Your task to perform on an android device: open wifi settings Image 0: 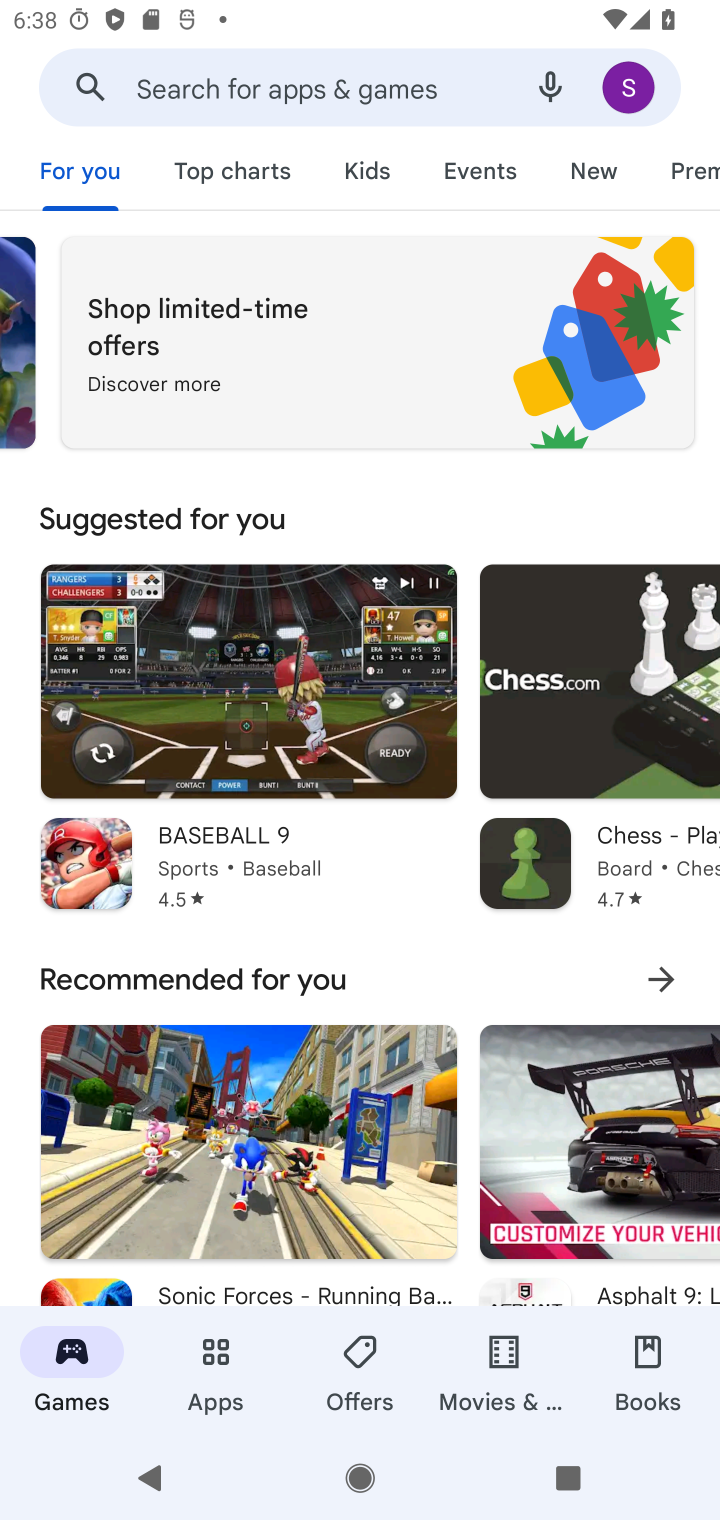
Step 0: press home button
Your task to perform on an android device: open wifi settings Image 1: 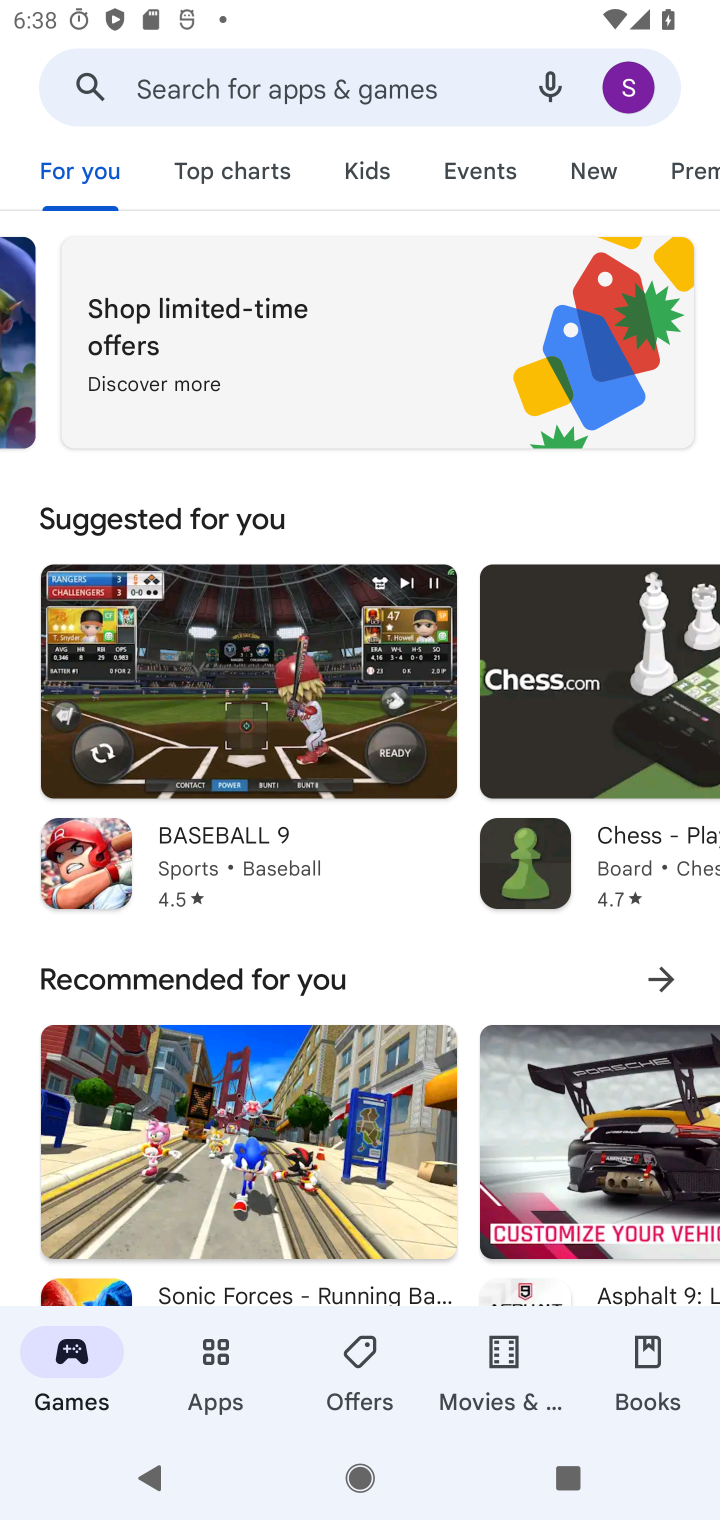
Step 1: press home button
Your task to perform on an android device: open wifi settings Image 2: 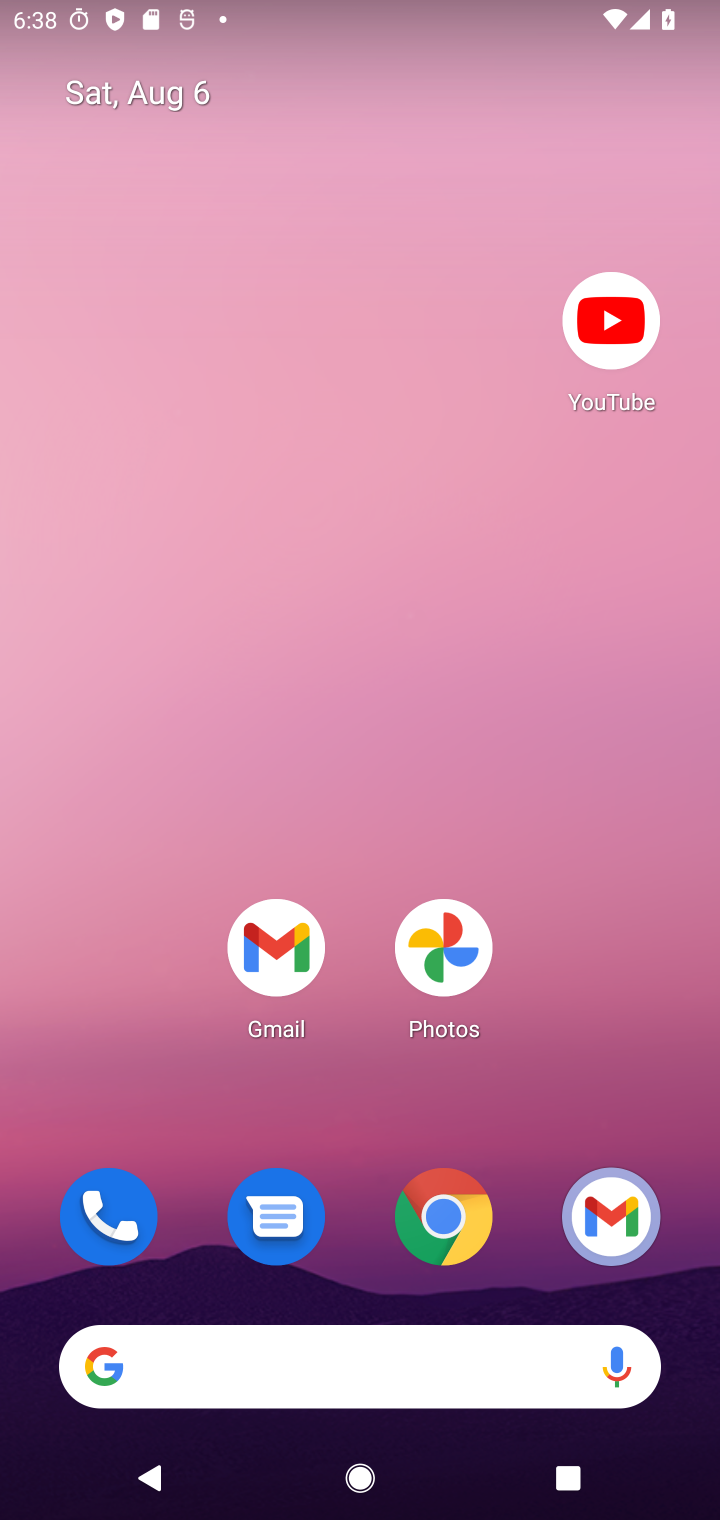
Step 2: drag from (617, 1075) to (430, 170)
Your task to perform on an android device: open wifi settings Image 3: 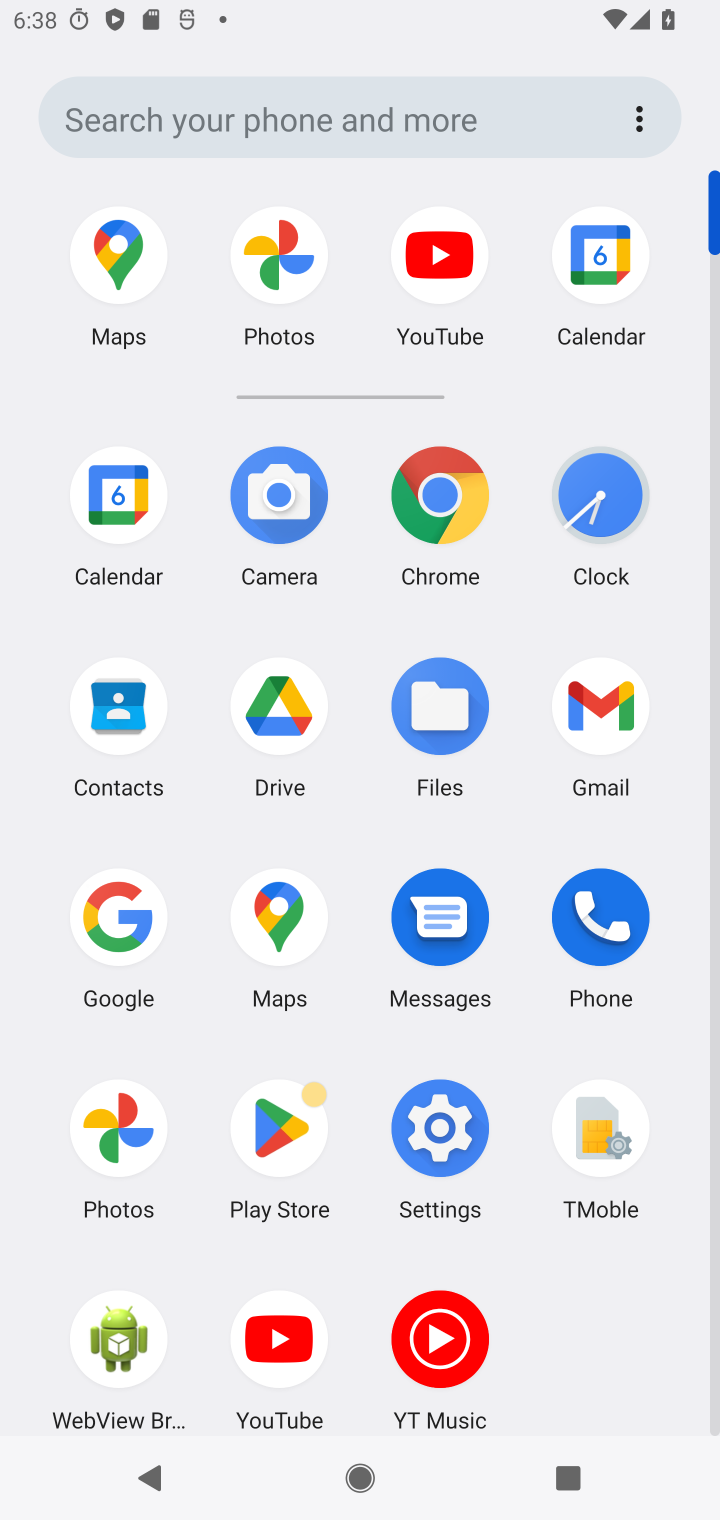
Step 3: click (423, 1137)
Your task to perform on an android device: open wifi settings Image 4: 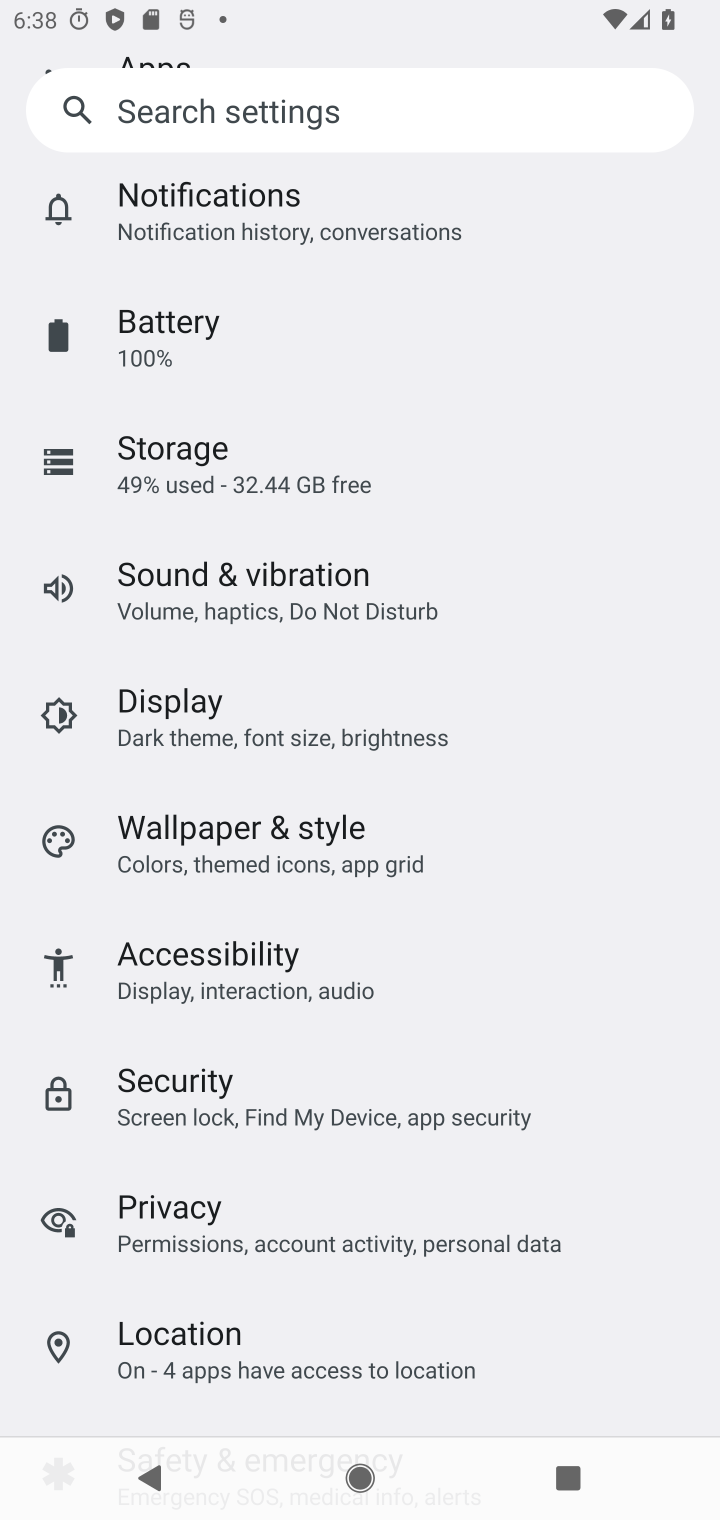
Step 4: drag from (450, 338) to (667, 1146)
Your task to perform on an android device: open wifi settings Image 5: 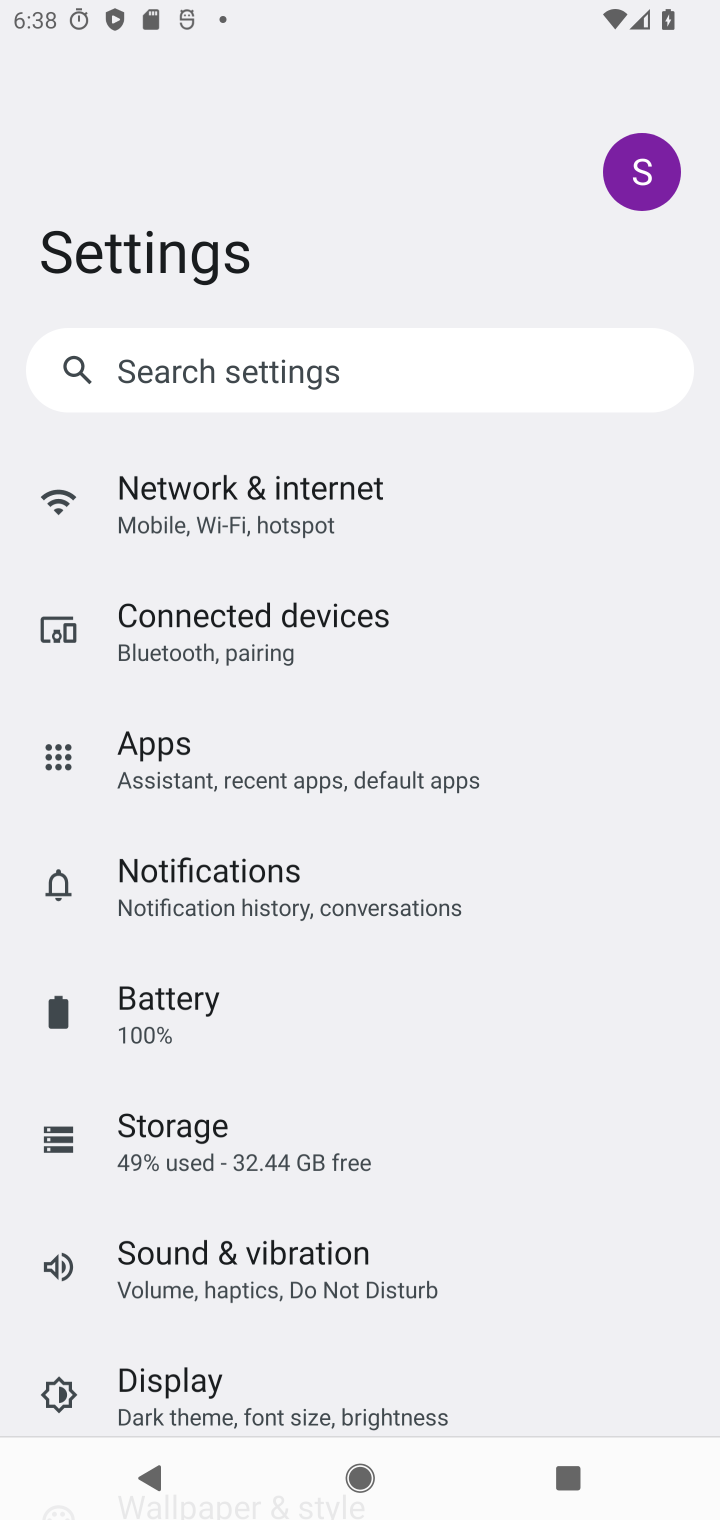
Step 5: click (282, 453)
Your task to perform on an android device: open wifi settings Image 6: 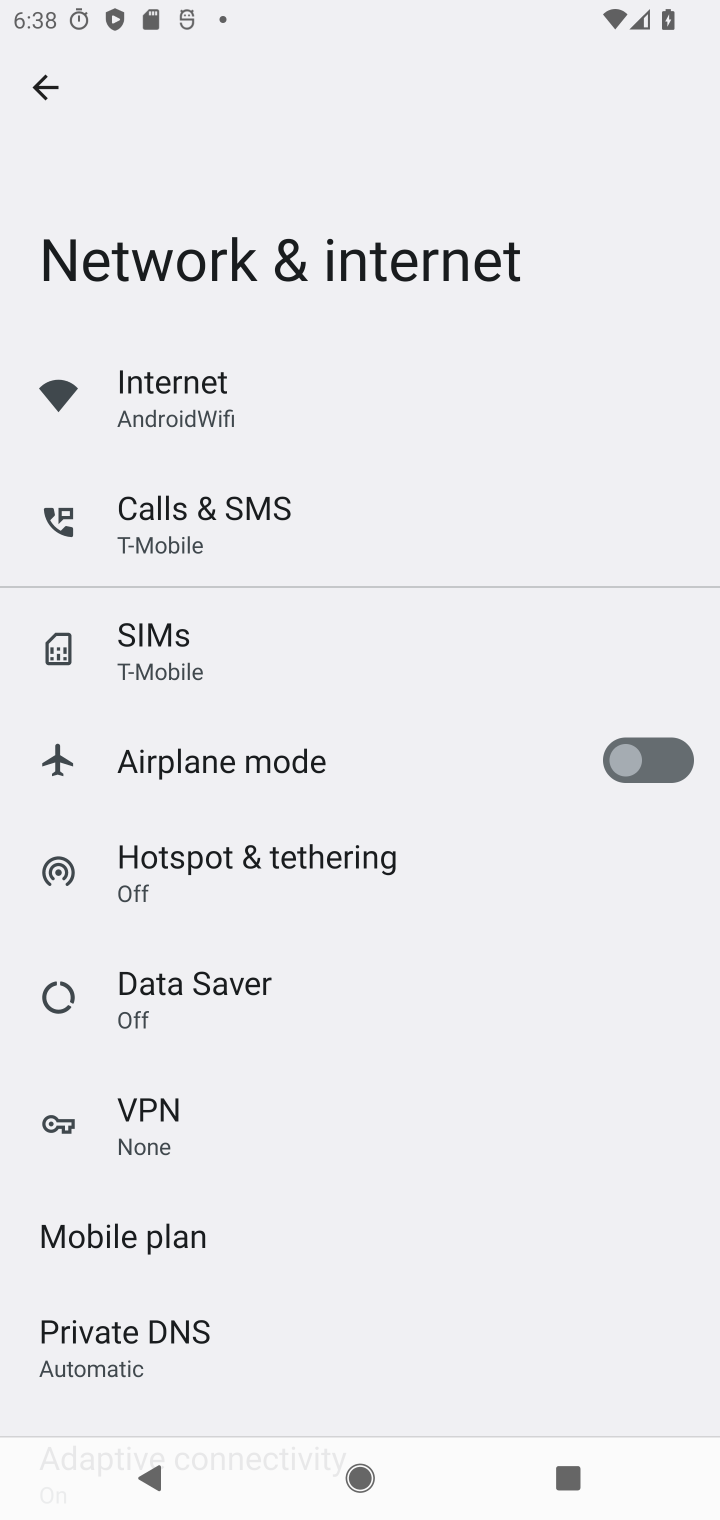
Step 6: click (202, 392)
Your task to perform on an android device: open wifi settings Image 7: 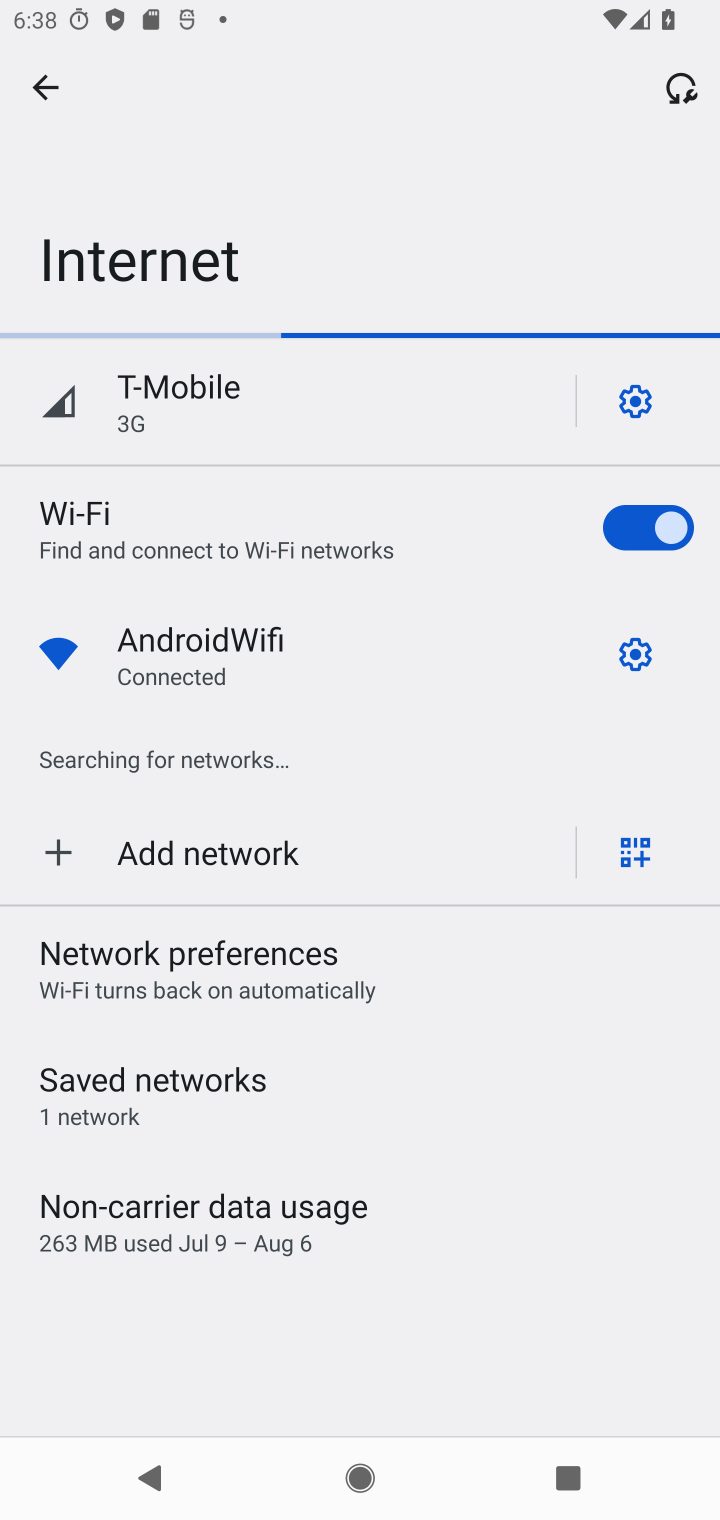
Step 7: click (631, 669)
Your task to perform on an android device: open wifi settings Image 8: 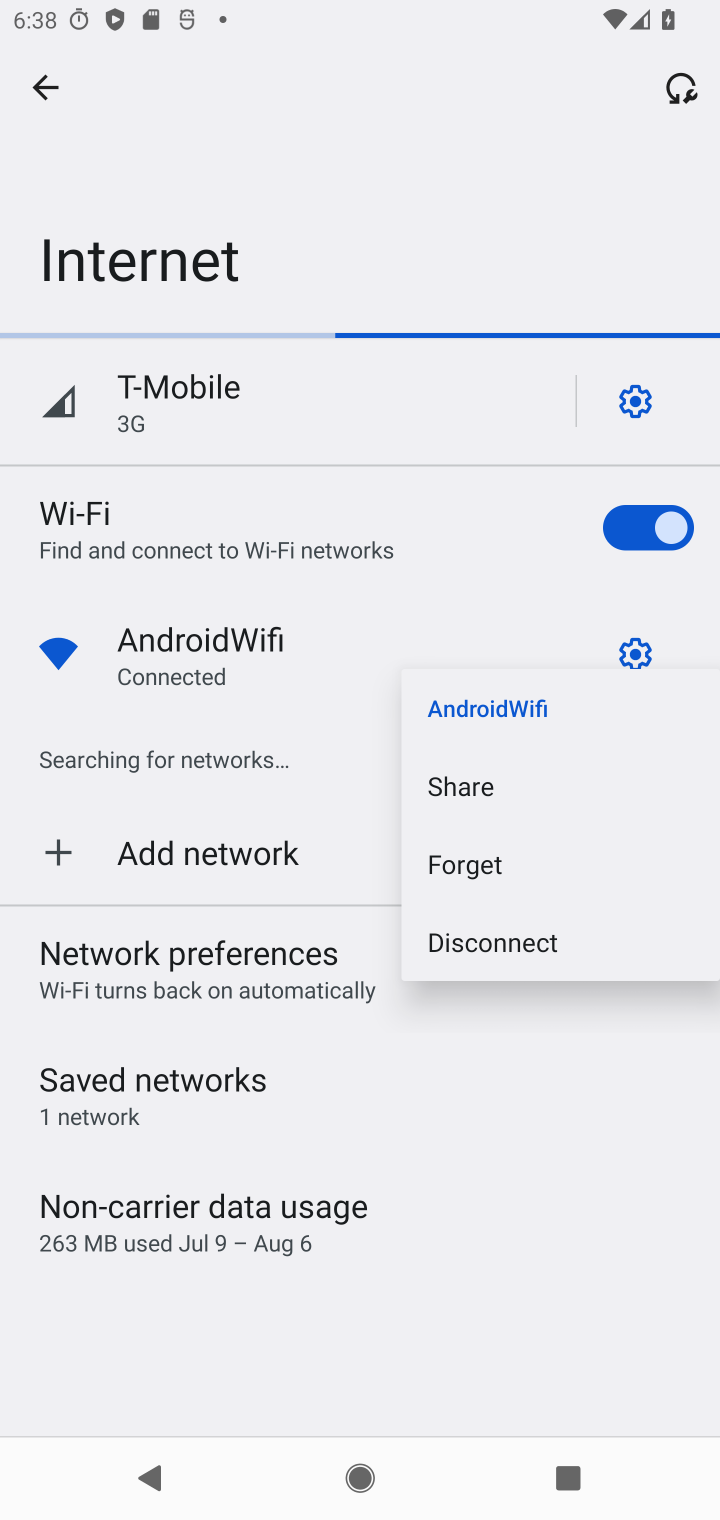
Step 8: click (628, 631)
Your task to perform on an android device: open wifi settings Image 9: 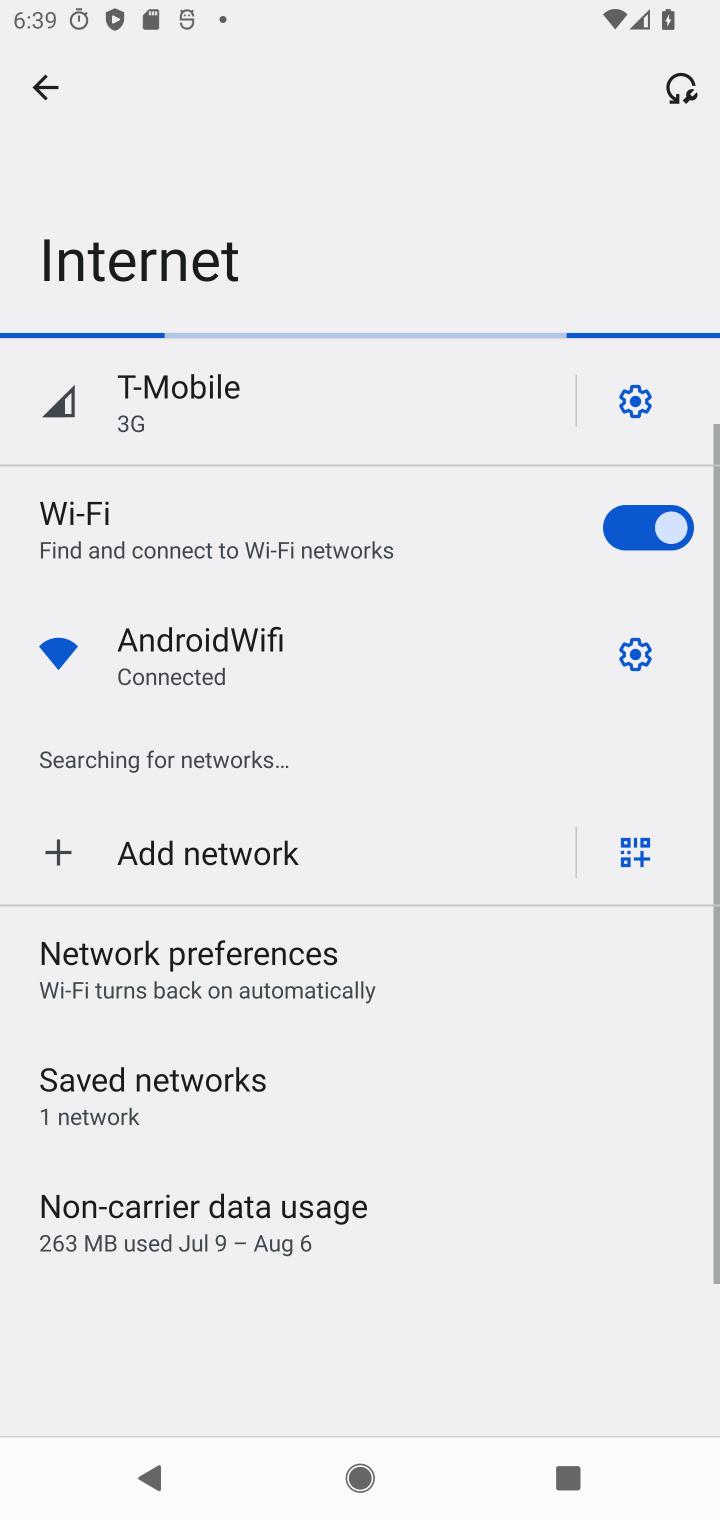
Step 9: click (627, 652)
Your task to perform on an android device: open wifi settings Image 10: 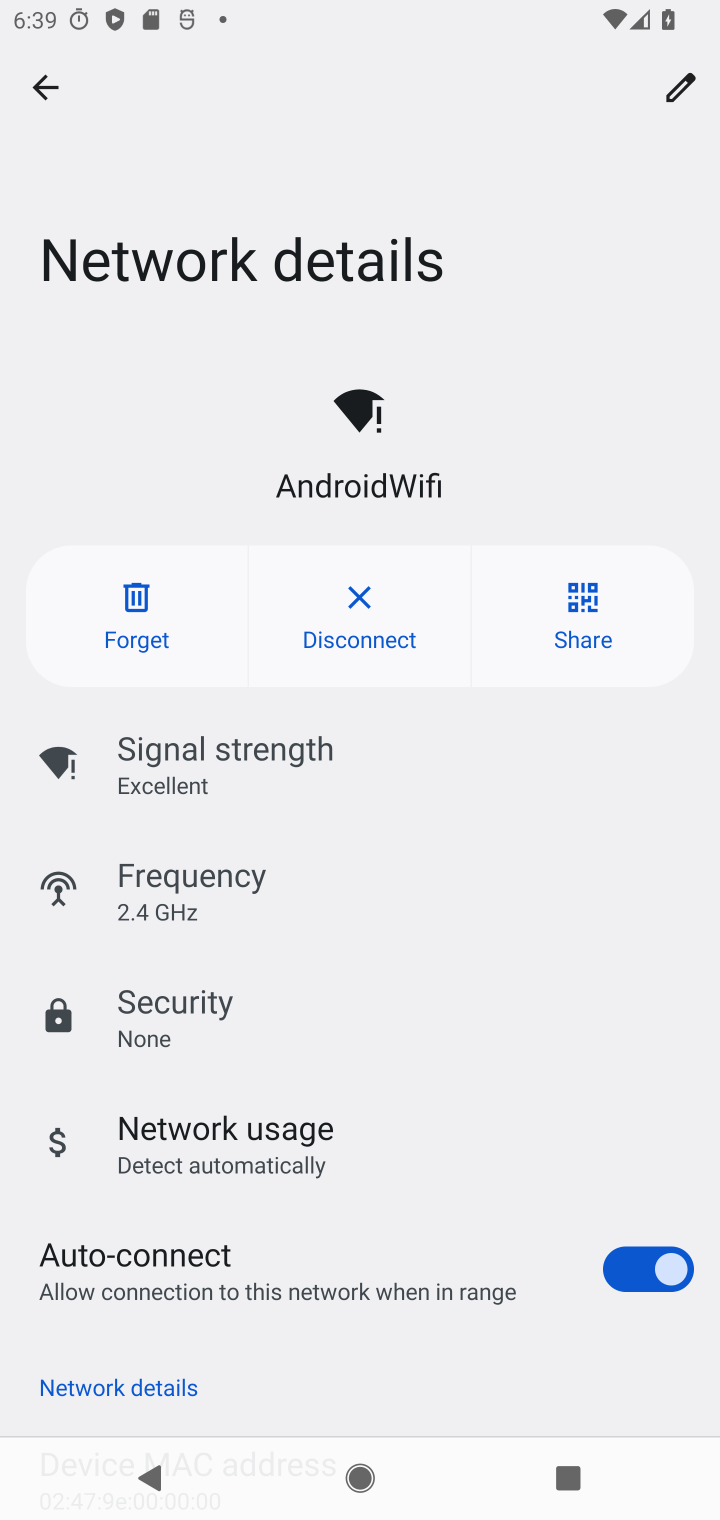
Step 10: task complete